Your task to perform on an android device: Open notification settings Image 0: 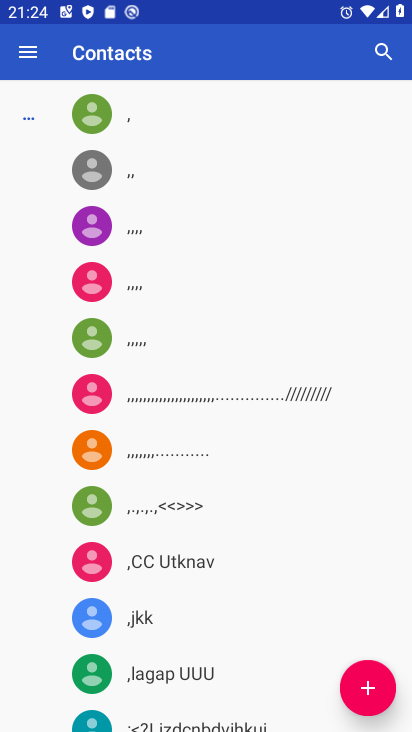
Step 0: press home button
Your task to perform on an android device: Open notification settings Image 1: 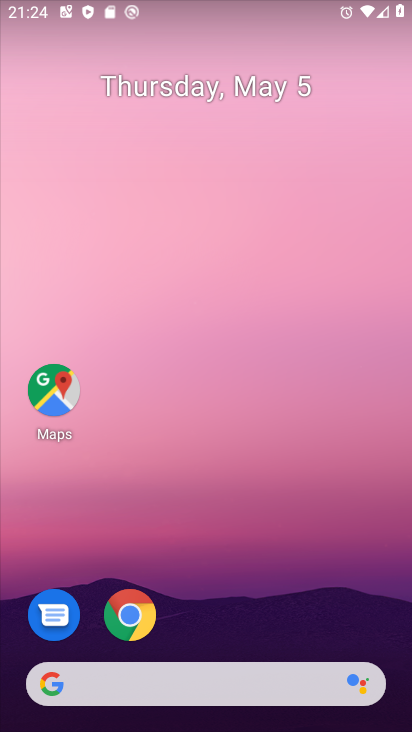
Step 1: drag from (222, 643) to (250, 214)
Your task to perform on an android device: Open notification settings Image 2: 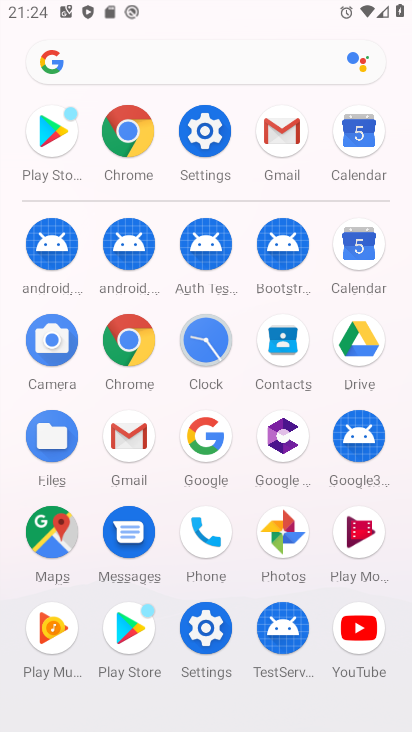
Step 2: click (213, 132)
Your task to perform on an android device: Open notification settings Image 3: 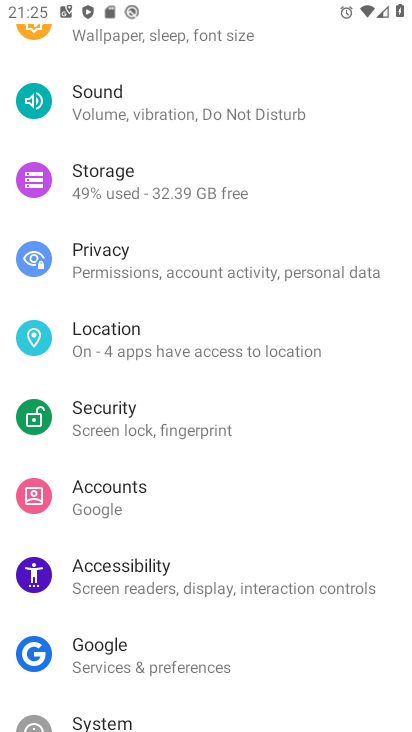
Step 3: drag from (178, 645) to (197, 432)
Your task to perform on an android device: Open notification settings Image 4: 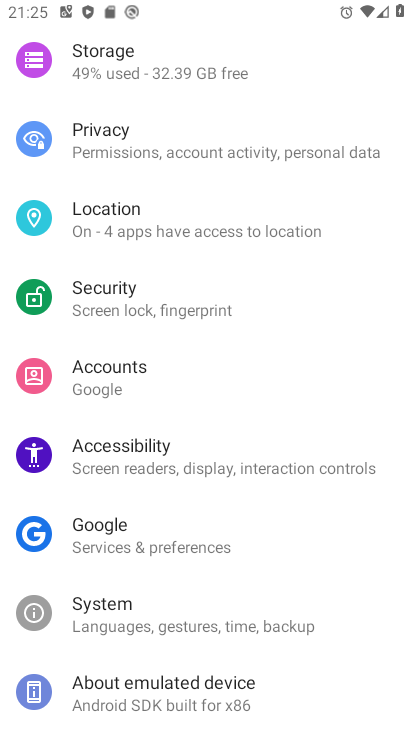
Step 4: drag from (230, 144) to (159, 729)
Your task to perform on an android device: Open notification settings Image 5: 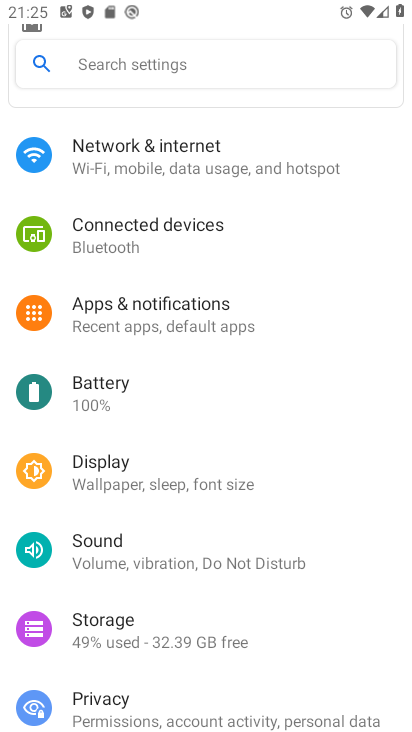
Step 5: click (195, 292)
Your task to perform on an android device: Open notification settings Image 6: 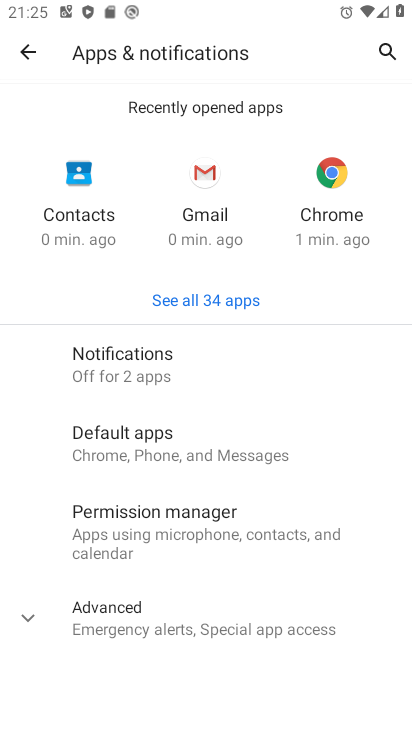
Step 6: click (167, 374)
Your task to perform on an android device: Open notification settings Image 7: 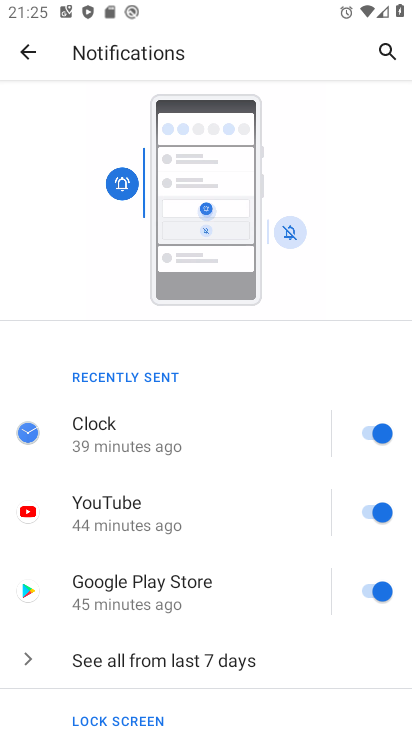
Step 7: task complete